Your task to perform on an android device: Open Android settings Image 0: 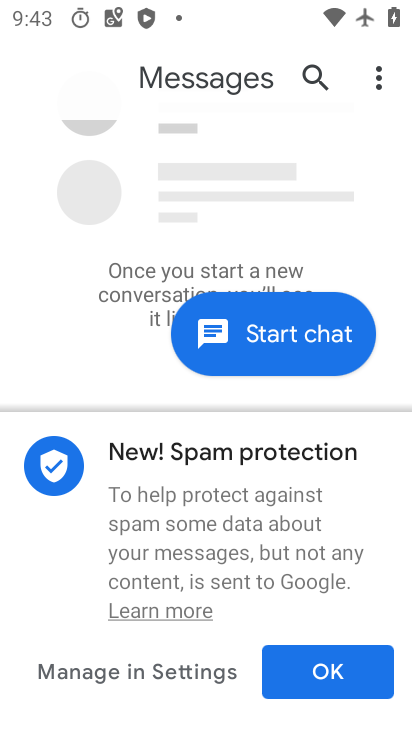
Step 0: press home button
Your task to perform on an android device: Open Android settings Image 1: 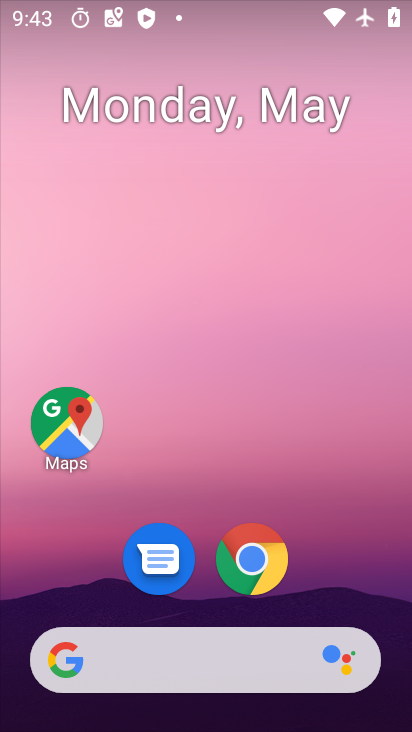
Step 1: drag from (190, 598) to (297, 5)
Your task to perform on an android device: Open Android settings Image 2: 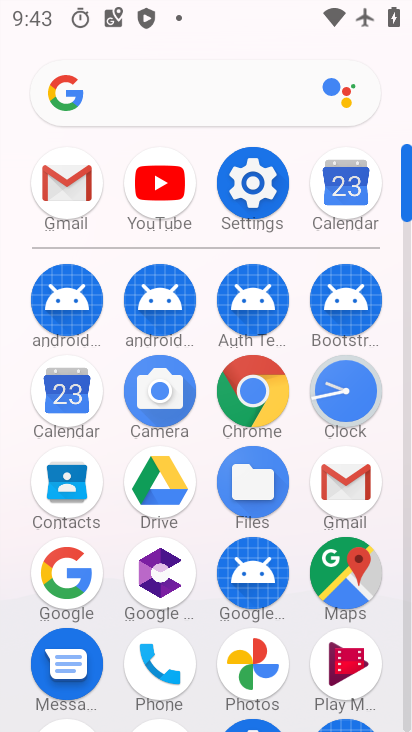
Step 2: click (252, 172)
Your task to perform on an android device: Open Android settings Image 3: 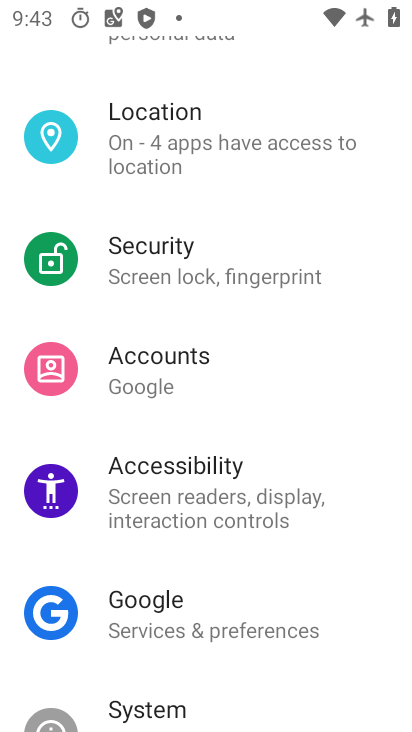
Step 3: click (126, 713)
Your task to perform on an android device: Open Android settings Image 4: 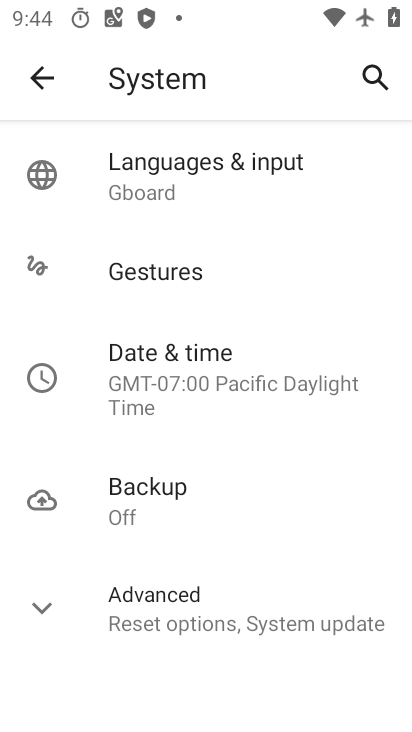
Step 4: task complete